Your task to perform on an android device: clear all cookies in the chrome app Image 0: 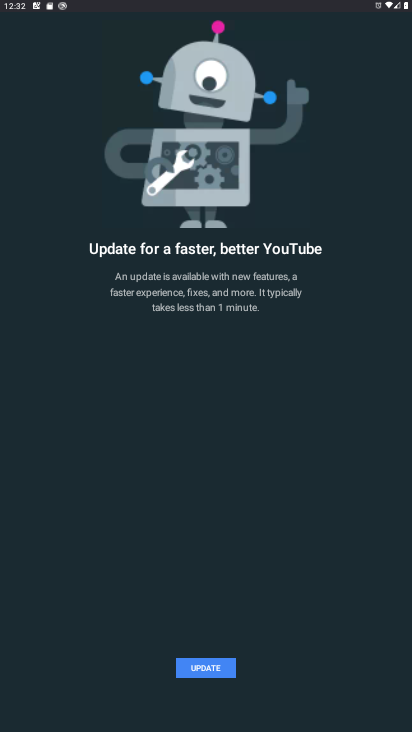
Step 0: press home button
Your task to perform on an android device: clear all cookies in the chrome app Image 1: 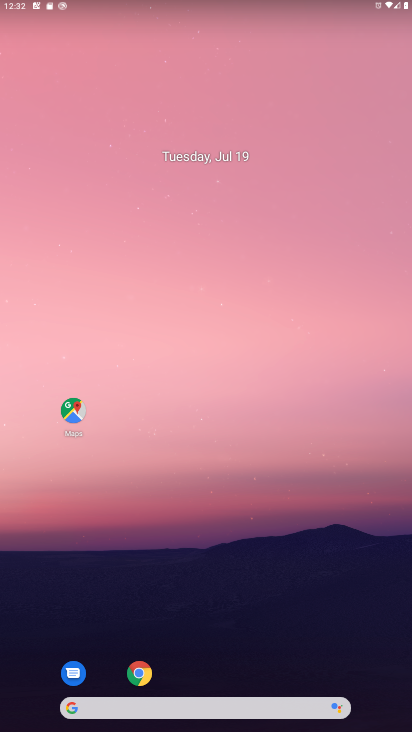
Step 1: click (146, 664)
Your task to perform on an android device: clear all cookies in the chrome app Image 2: 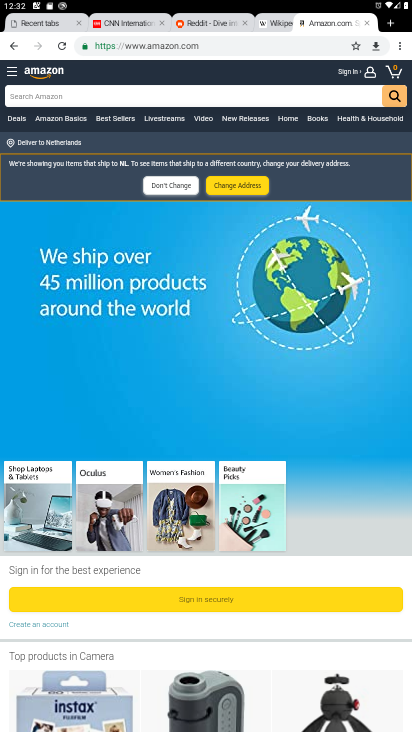
Step 2: click (401, 42)
Your task to perform on an android device: clear all cookies in the chrome app Image 3: 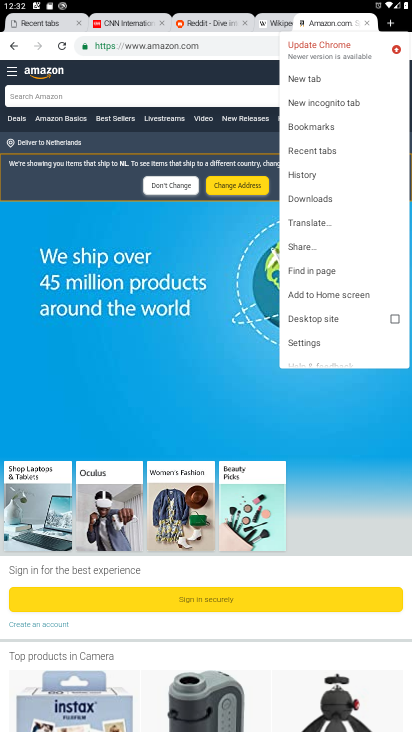
Step 3: click (319, 177)
Your task to perform on an android device: clear all cookies in the chrome app Image 4: 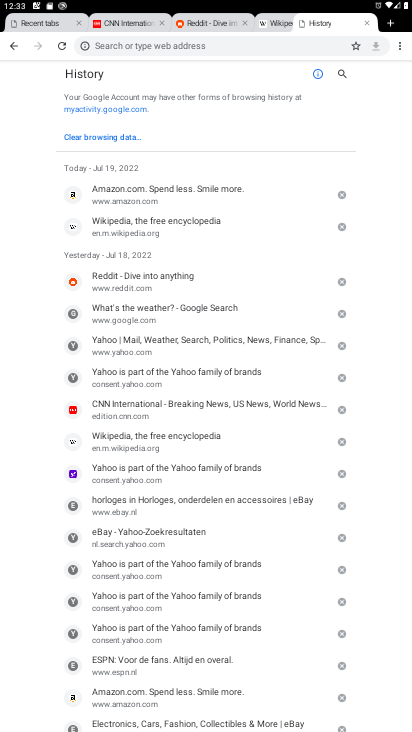
Step 4: click (115, 132)
Your task to perform on an android device: clear all cookies in the chrome app Image 5: 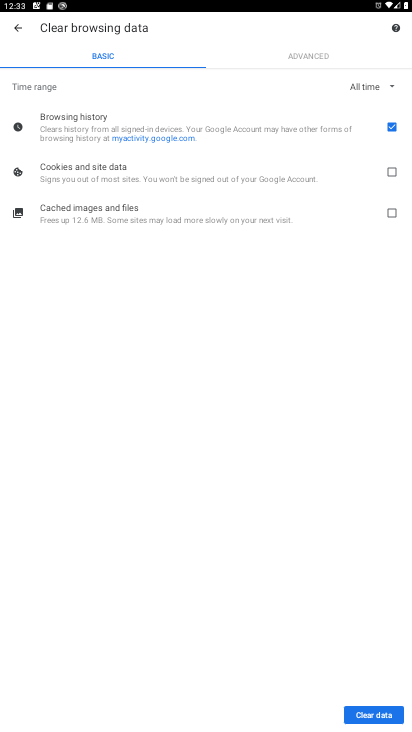
Step 5: click (369, 721)
Your task to perform on an android device: clear all cookies in the chrome app Image 6: 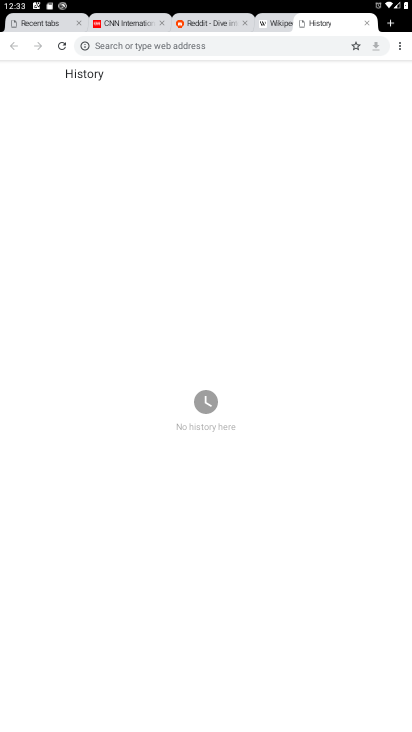
Step 6: task complete